Your task to perform on an android device: empty trash in google photos Image 0: 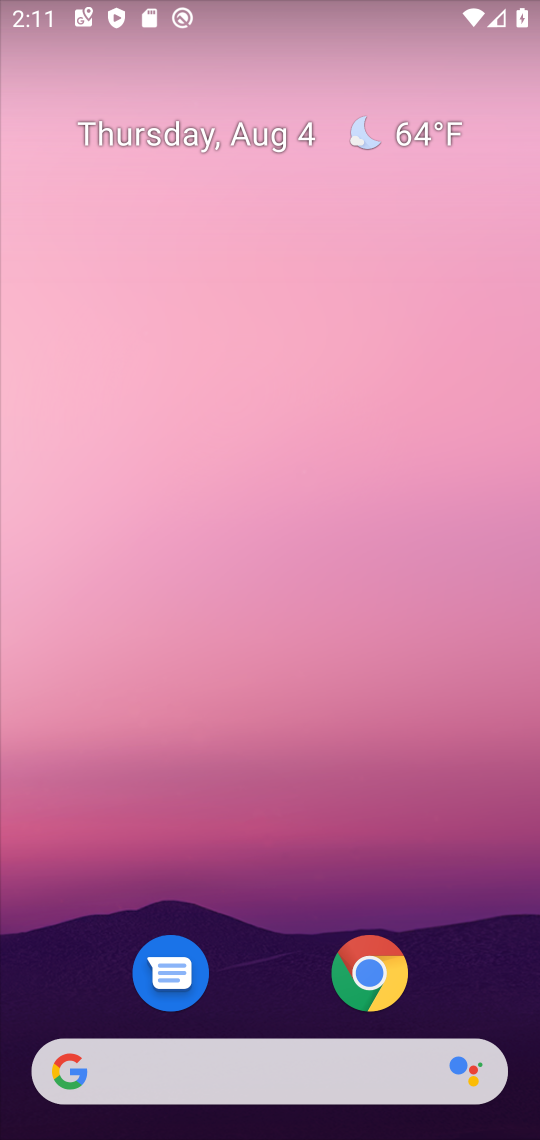
Step 0: drag from (304, 1031) to (227, 19)
Your task to perform on an android device: empty trash in google photos Image 1: 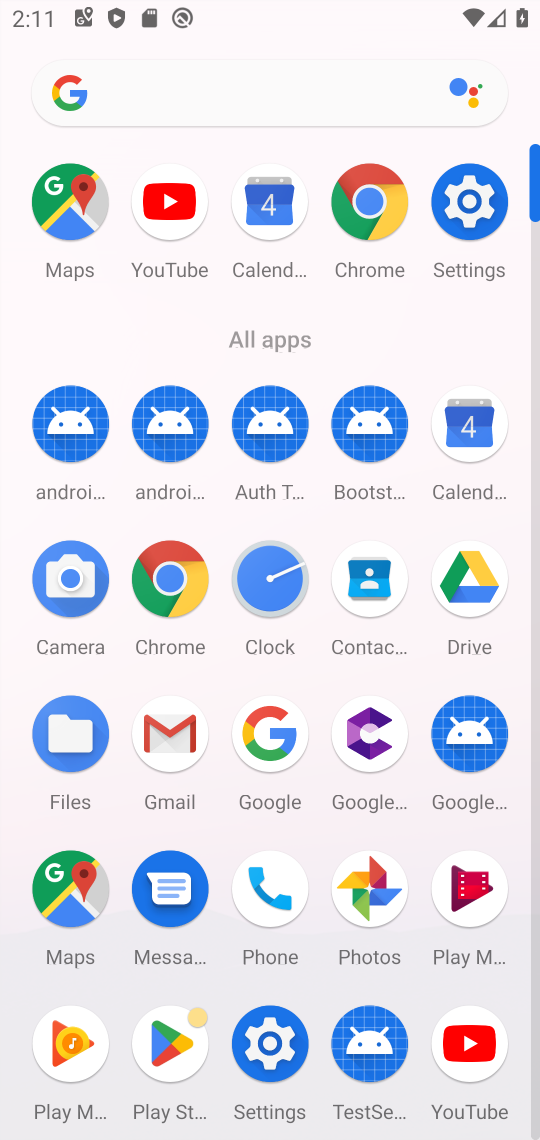
Step 1: click (356, 882)
Your task to perform on an android device: empty trash in google photos Image 2: 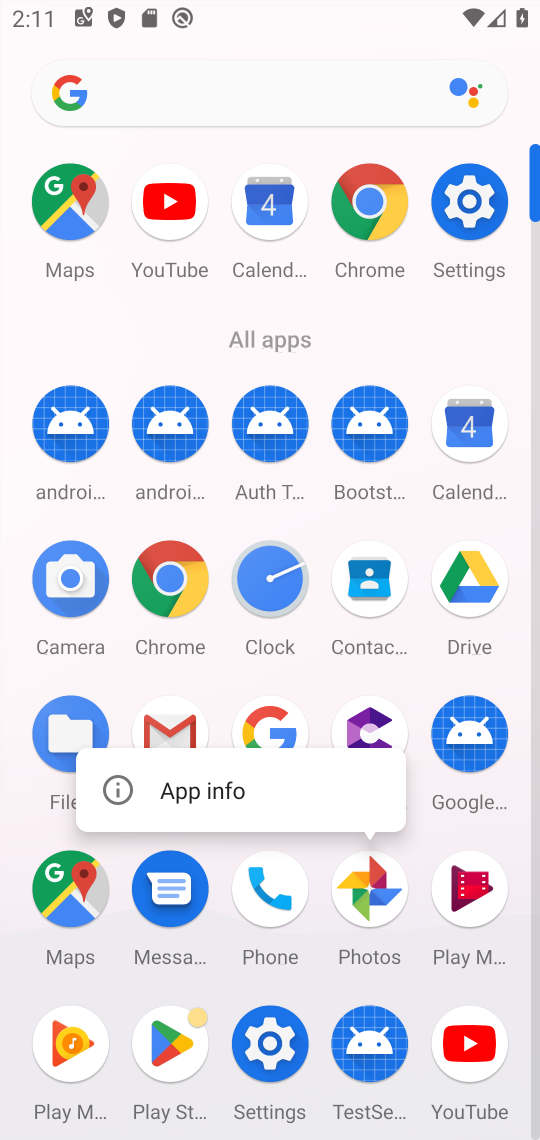
Step 2: click (371, 913)
Your task to perform on an android device: empty trash in google photos Image 3: 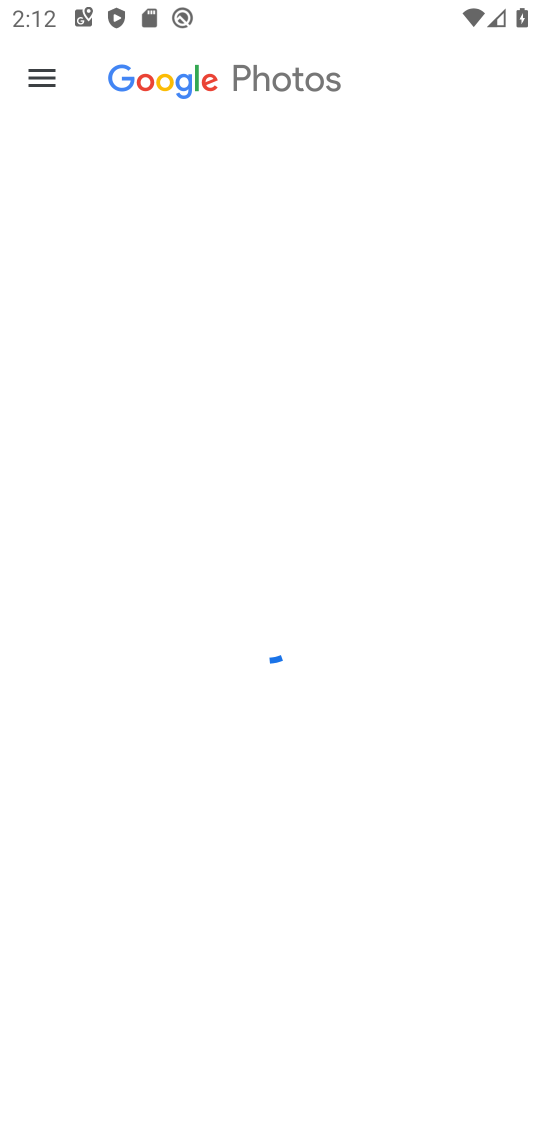
Step 3: click (47, 69)
Your task to perform on an android device: empty trash in google photos Image 4: 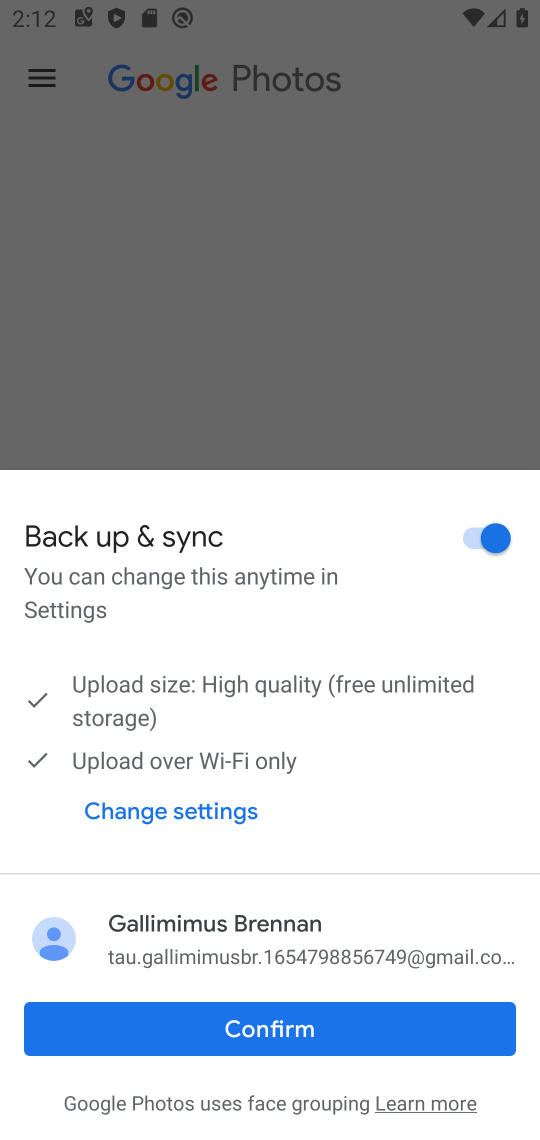
Step 4: click (277, 1019)
Your task to perform on an android device: empty trash in google photos Image 5: 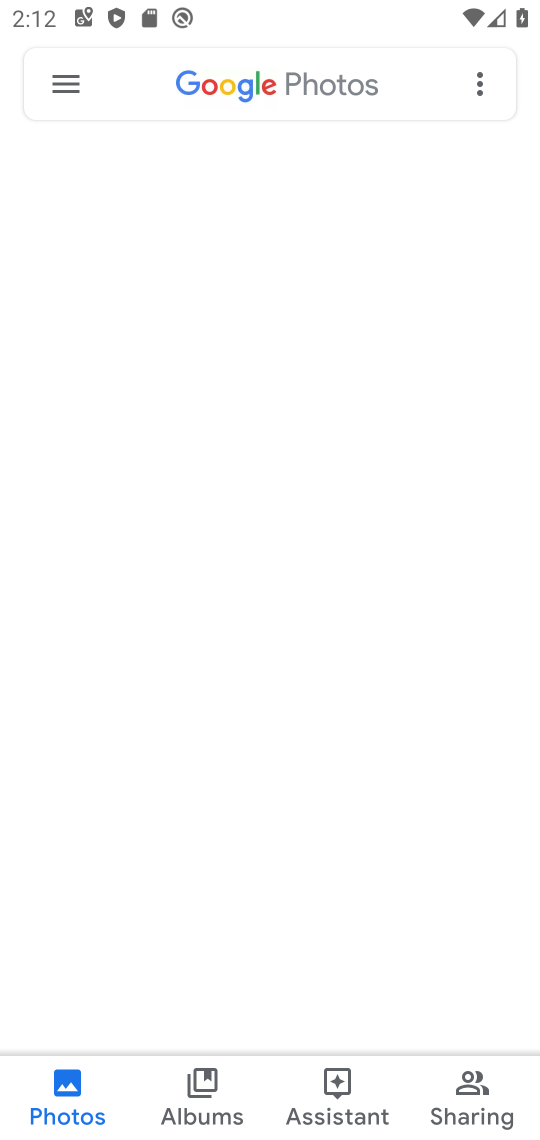
Step 5: click (52, 74)
Your task to perform on an android device: empty trash in google photos Image 6: 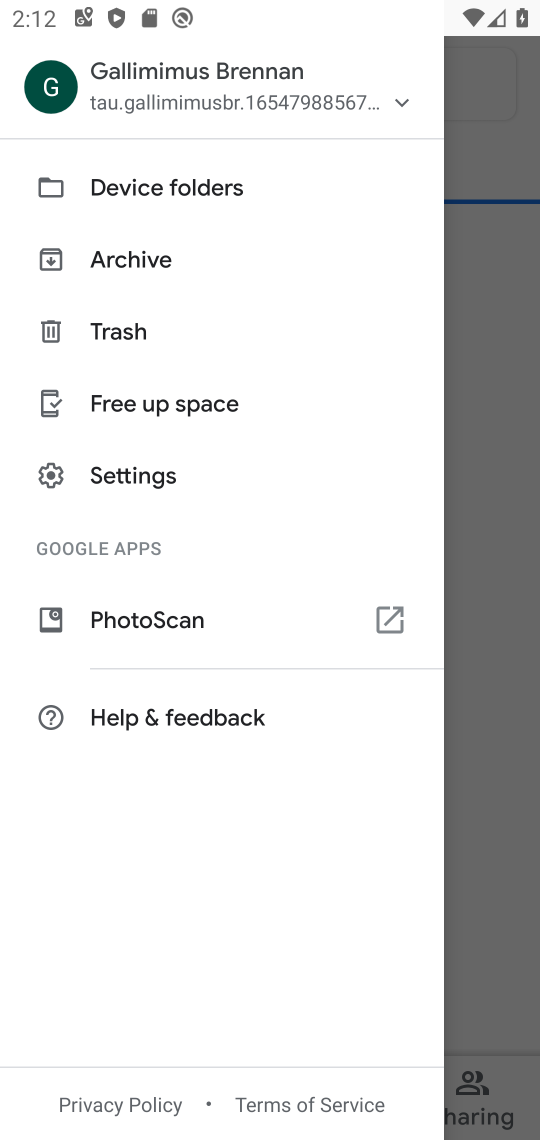
Step 6: click (128, 342)
Your task to perform on an android device: empty trash in google photos Image 7: 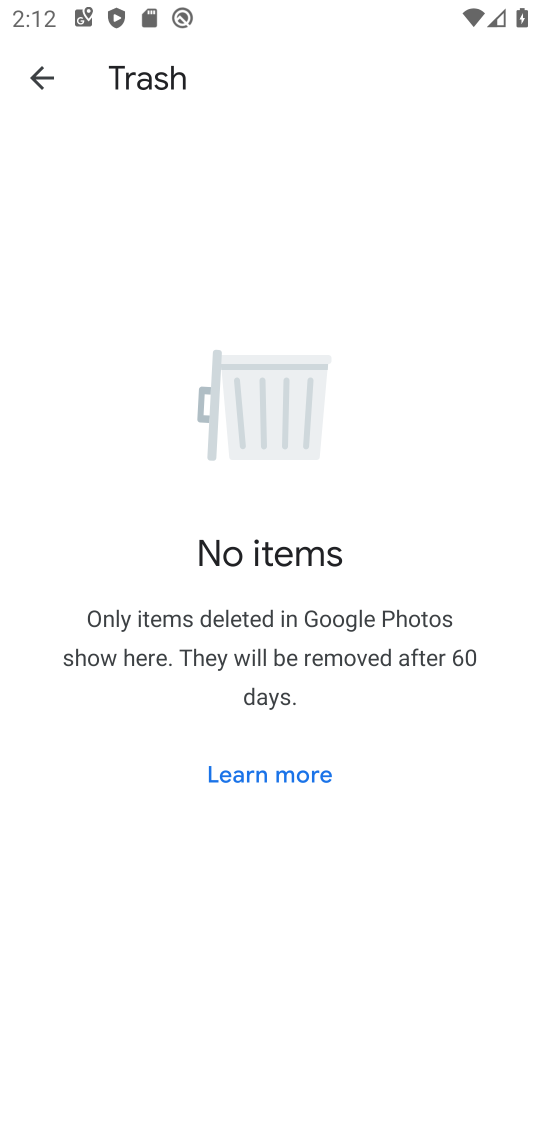
Step 7: task complete